Your task to perform on an android device: read, delete, or share a saved page in the chrome app Image 0: 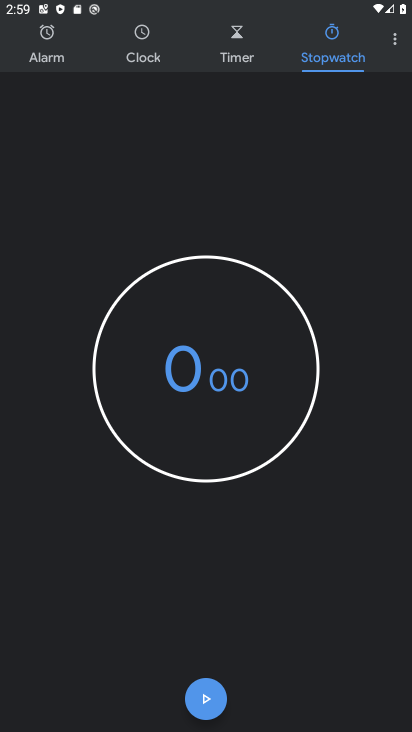
Step 0: press home button
Your task to perform on an android device: read, delete, or share a saved page in the chrome app Image 1: 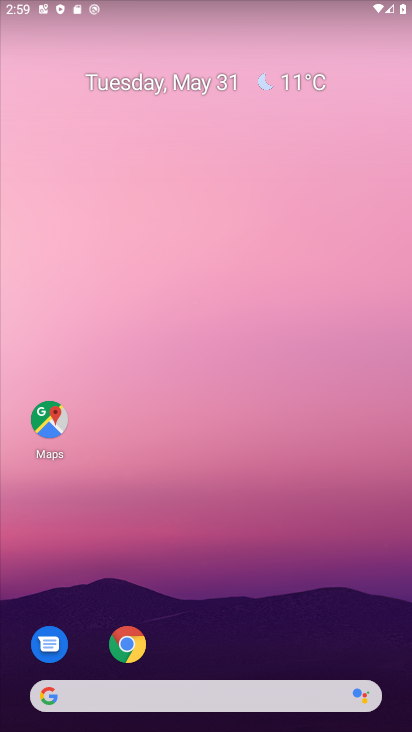
Step 1: drag from (269, 530) to (267, 214)
Your task to perform on an android device: read, delete, or share a saved page in the chrome app Image 2: 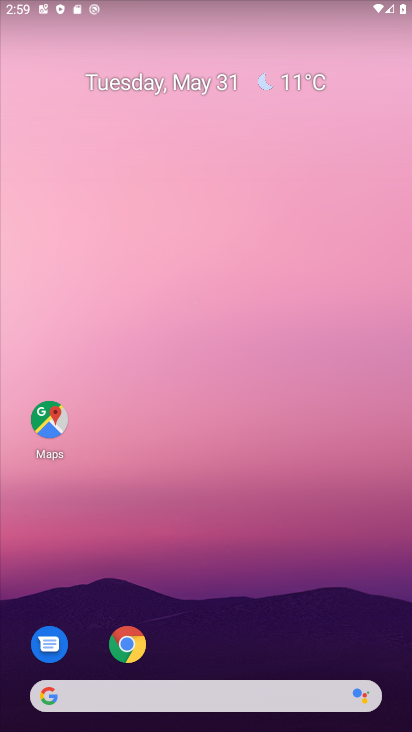
Step 2: click (118, 654)
Your task to perform on an android device: read, delete, or share a saved page in the chrome app Image 3: 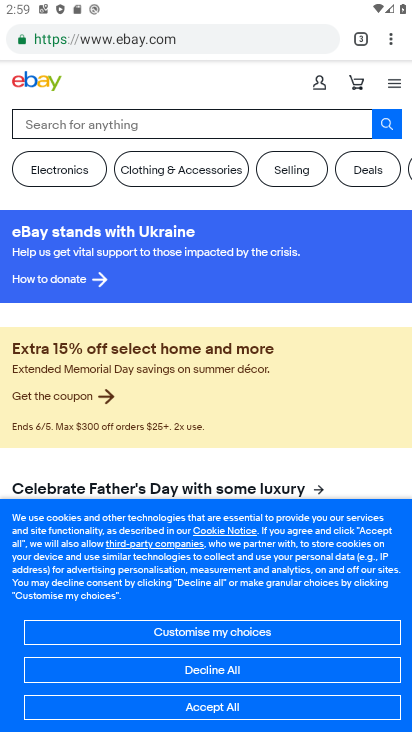
Step 3: click (399, 28)
Your task to perform on an android device: read, delete, or share a saved page in the chrome app Image 4: 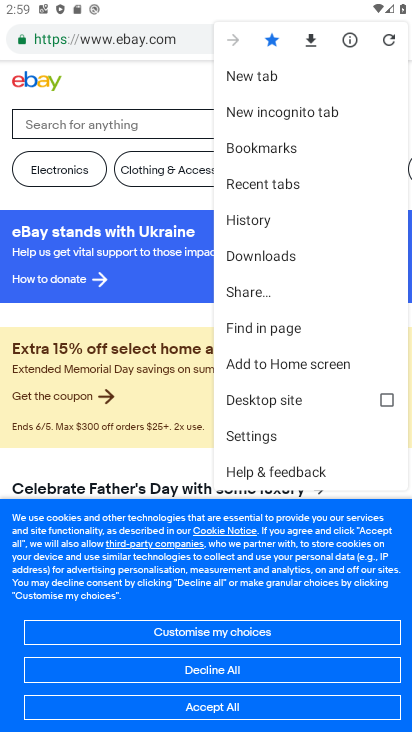
Step 4: click (282, 440)
Your task to perform on an android device: read, delete, or share a saved page in the chrome app Image 5: 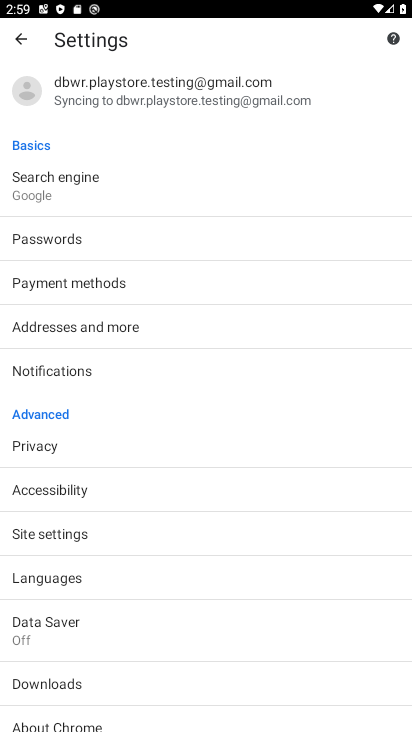
Step 5: drag from (229, 668) to (262, 347)
Your task to perform on an android device: read, delete, or share a saved page in the chrome app Image 6: 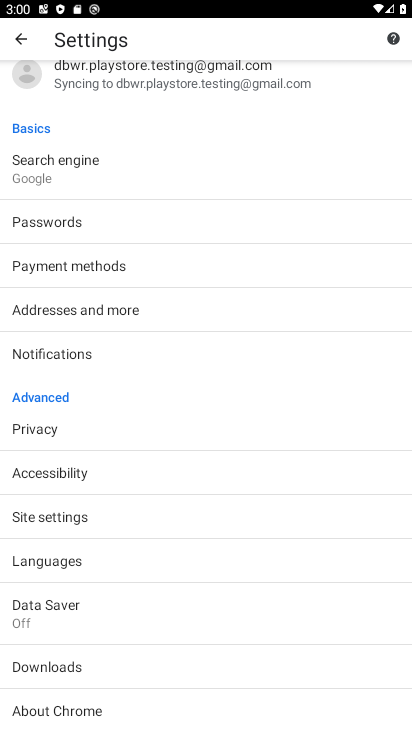
Step 6: press back button
Your task to perform on an android device: read, delete, or share a saved page in the chrome app Image 7: 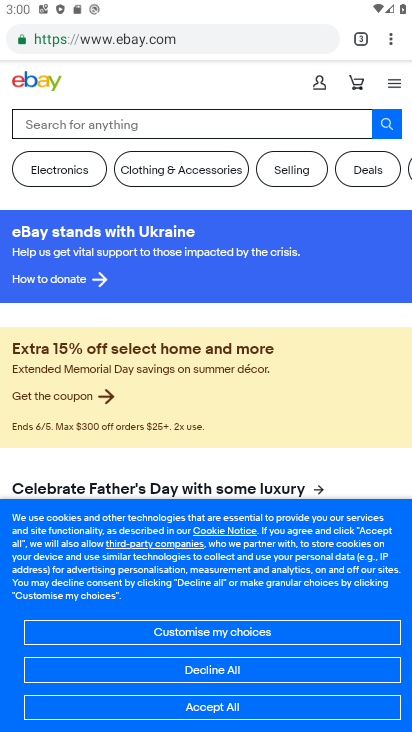
Step 7: click (398, 38)
Your task to perform on an android device: read, delete, or share a saved page in the chrome app Image 8: 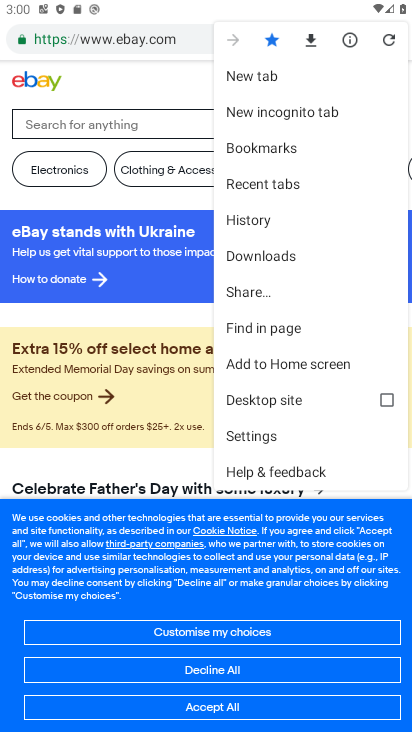
Step 8: click (284, 246)
Your task to perform on an android device: read, delete, or share a saved page in the chrome app Image 9: 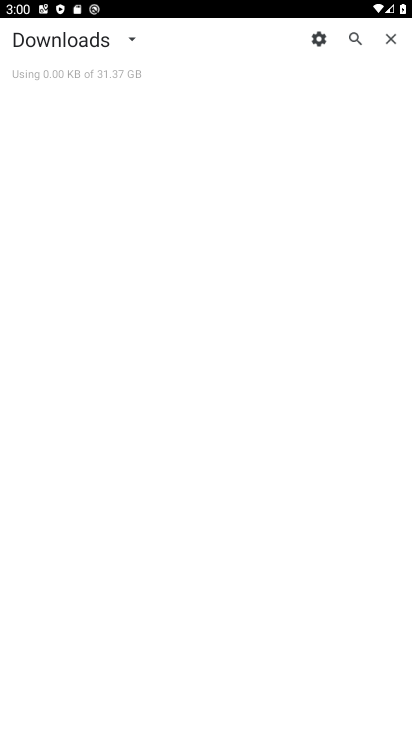
Step 9: click (101, 37)
Your task to perform on an android device: read, delete, or share a saved page in the chrome app Image 10: 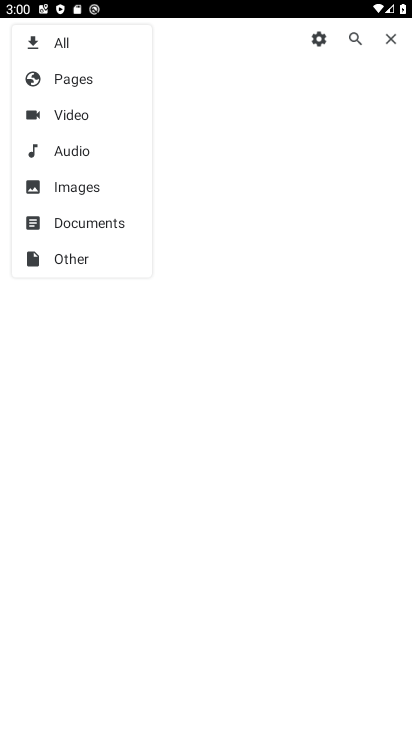
Step 10: click (74, 83)
Your task to perform on an android device: read, delete, or share a saved page in the chrome app Image 11: 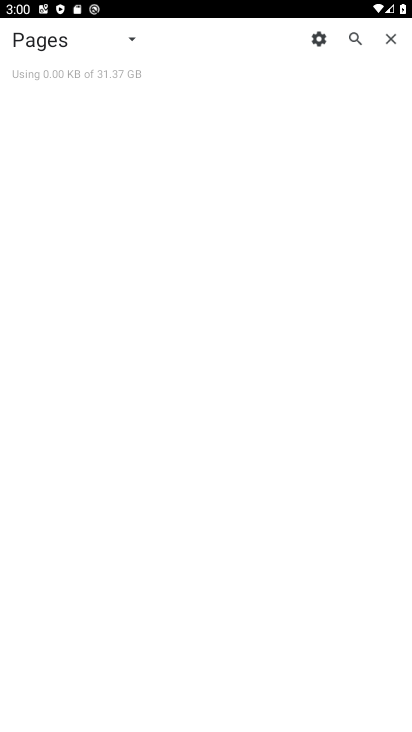
Step 11: task complete